Your task to perform on an android device: Go to notification settings Image 0: 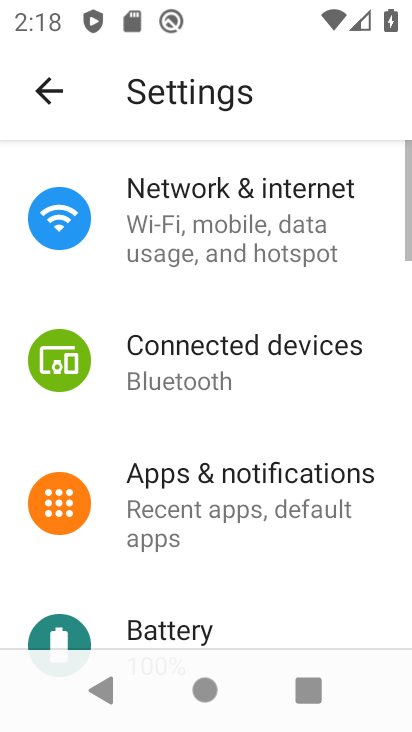
Step 0: drag from (253, 565) to (198, 143)
Your task to perform on an android device: Go to notification settings Image 1: 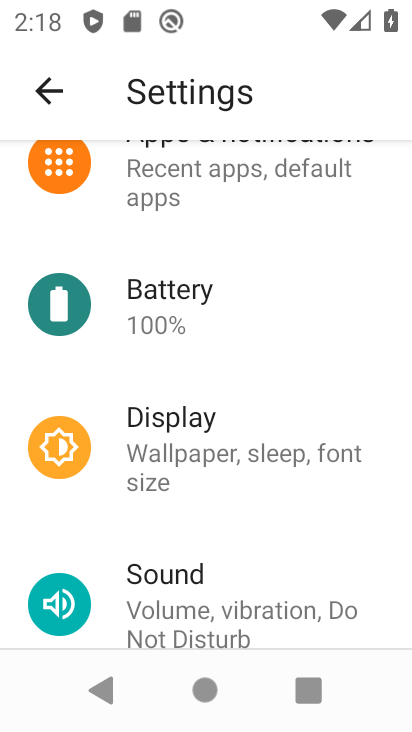
Step 1: drag from (223, 533) to (186, 229)
Your task to perform on an android device: Go to notification settings Image 2: 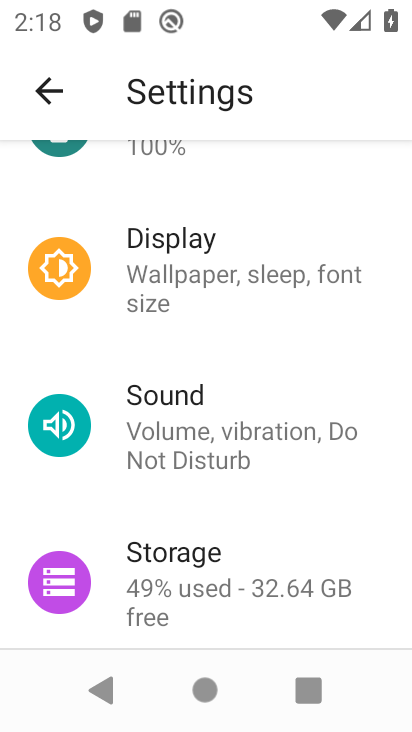
Step 2: drag from (221, 577) to (190, 253)
Your task to perform on an android device: Go to notification settings Image 3: 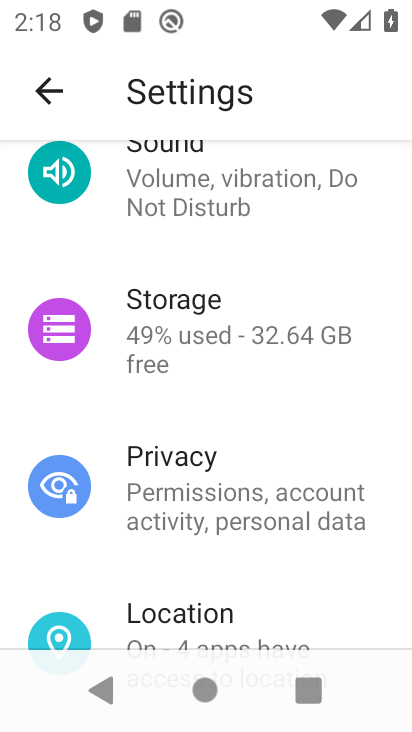
Step 3: drag from (197, 567) to (163, 263)
Your task to perform on an android device: Go to notification settings Image 4: 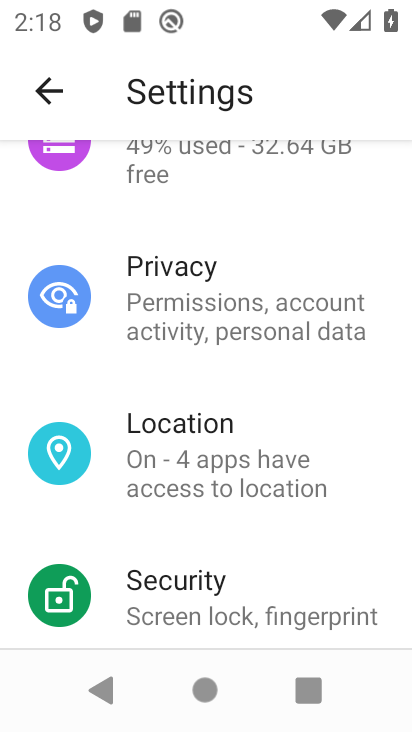
Step 4: drag from (183, 253) to (230, 539)
Your task to perform on an android device: Go to notification settings Image 5: 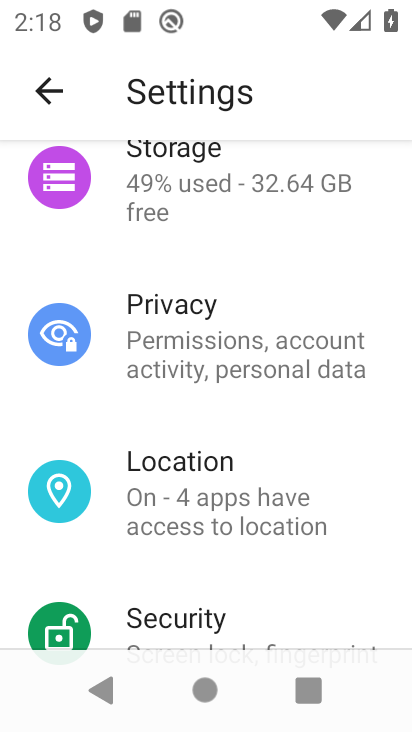
Step 5: drag from (241, 243) to (294, 460)
Your task to perform on an android device: Go to notification settings Image 6: 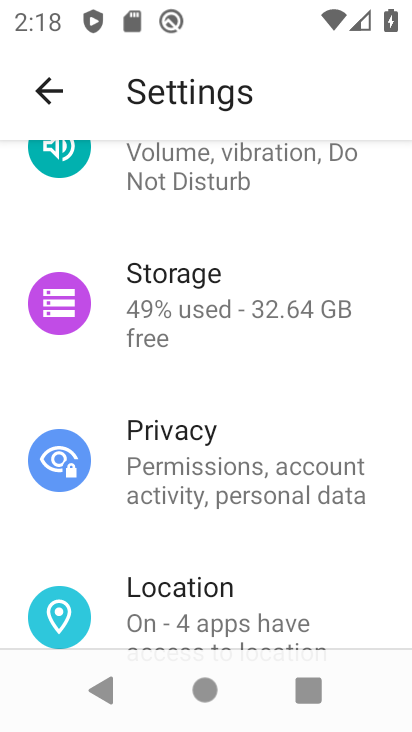
Step 6: drag from (316, 377) to (316, 567)
Your task to perform on an android device: Go to notification settings Image 7: 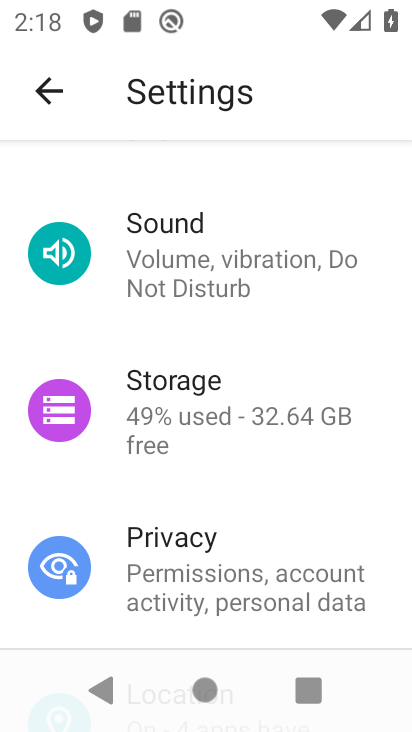
Step 7: drag from (268, 300) to (291, 560)
Your task to perform on an android device: Go to notification settings Image 8: 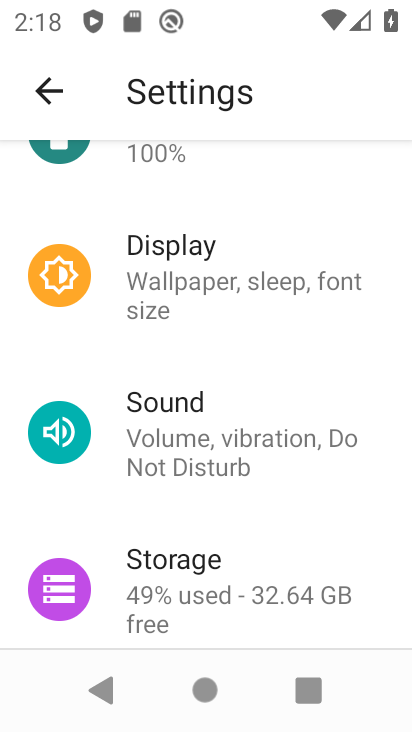
Step 8: drag from (260, 291) to (313, 562)
Your task to perform on an android device: Go to notification settings Image 9: 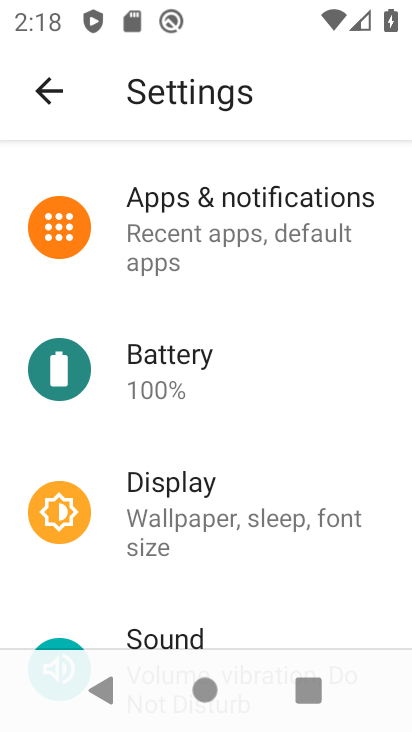
Step 9: drag from (276, 291) to (267, 550)
Your task to perform on an android device: Go to notification settings Image 10: 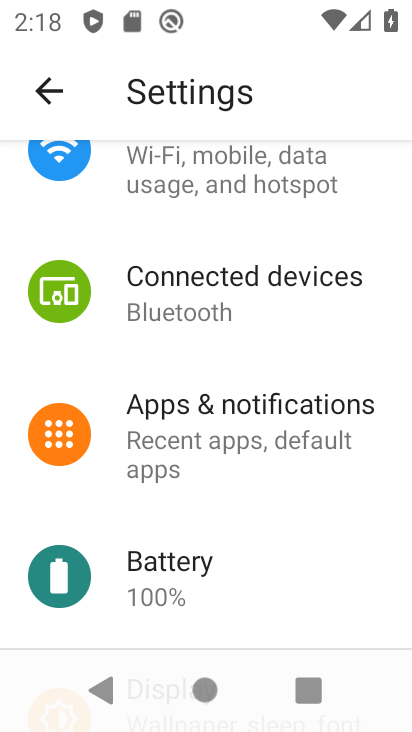
Step 10: drag from (256, 306) to (245, 404)
Your task to perform on an android device: Go to notification settings Image 11: 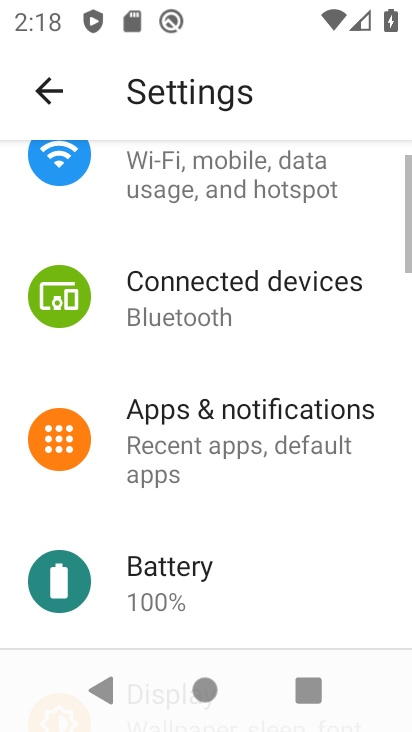
Step 11: drag from (294, 249) to (293, 519)
Your task to perform on an android device: Go to notification settings Image 12: 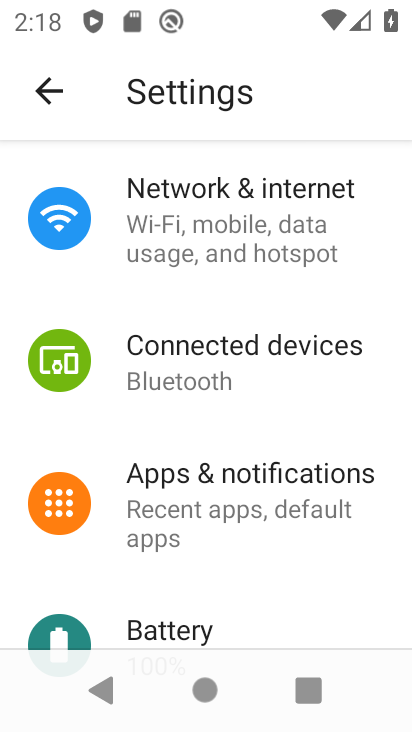
Step 12: drag from (280, 198) to (302, 513)
Your task to perform on an android device: Go to notification settings Image 13: 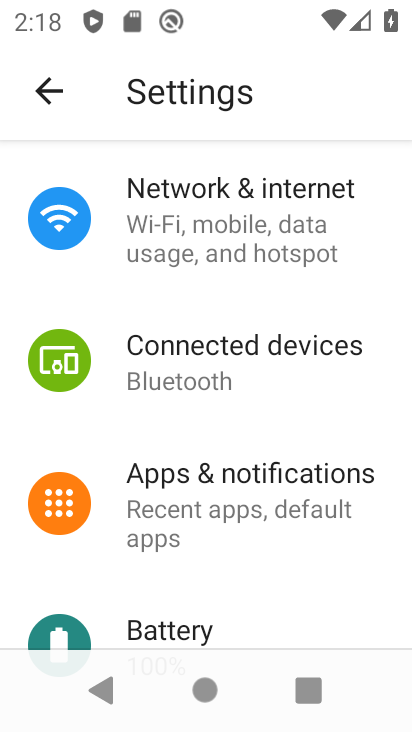
Step 13: click (301, 505)
Your task to perform on an android device: Go to notification settings Image 14: 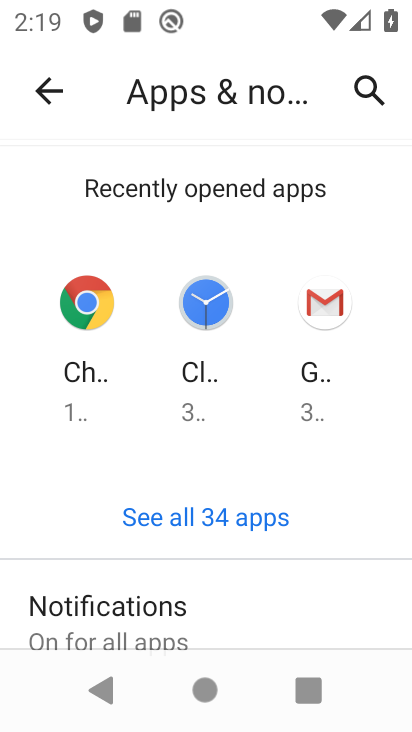
Step 14: click (149, 612)
Your task to perform on an android device: Go to notification settings Image 15: 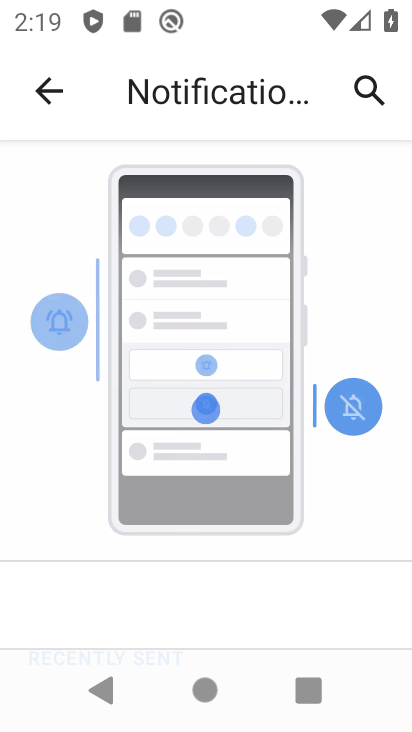
Step 15: task complete